Your task to perform on an android device: Go to battery settings Image 0: 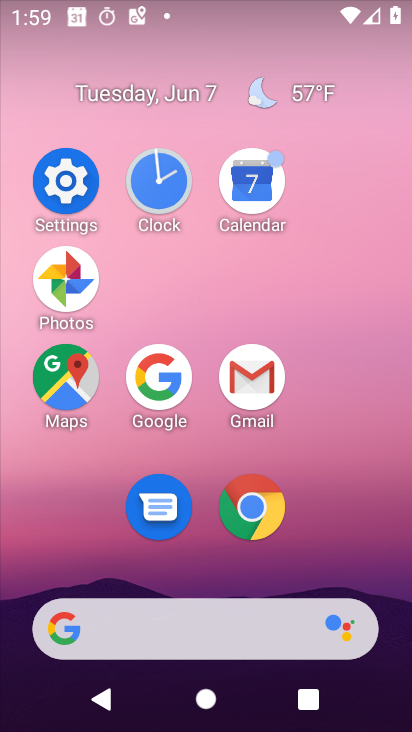
Step 0: click (52, 188)
Your task to perform on an android device: Go to battery settings Image 1: 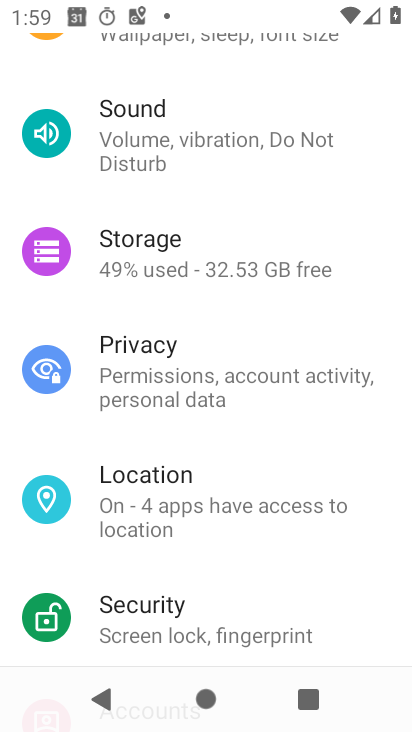
Step 1: drag from (296, 270) to (294, 601)
Your task to perform on an android device: Go to battery settings Image 2: 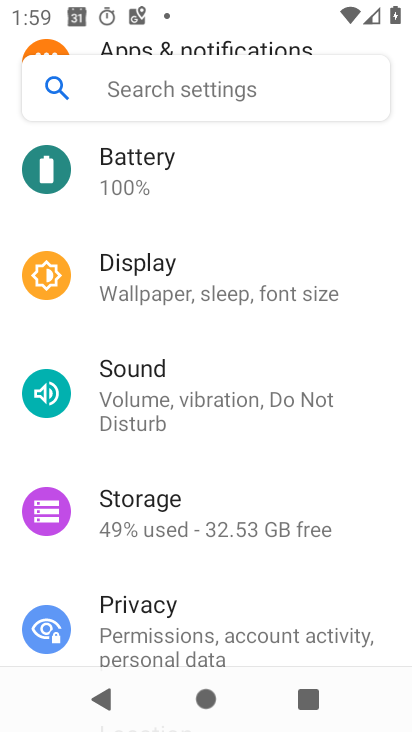
Step 2: click (239, 169)
Your task to perform on an android device: Go to battery settings Image 3: 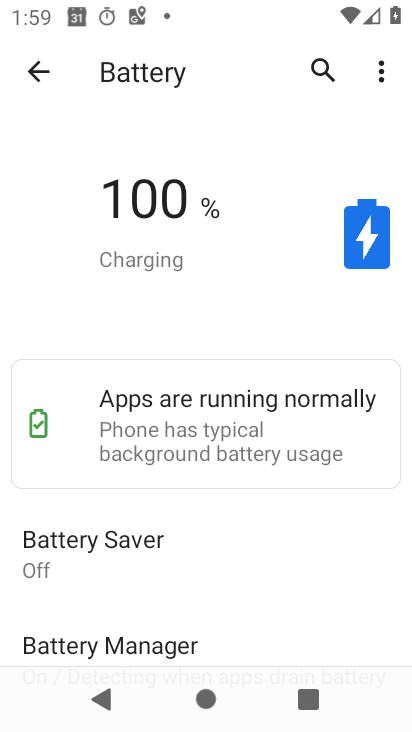
Step 3: task complete